Your task to perform on an android device: snooze an email in the gmail app Image 0: 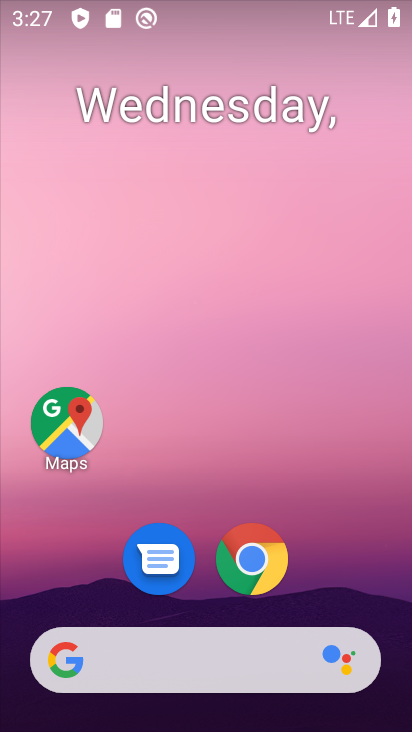
Step 0: drag from (243, 139) to (200, 8)
Your task to perform on an android device: snooze an email in the gmail app Image 1: 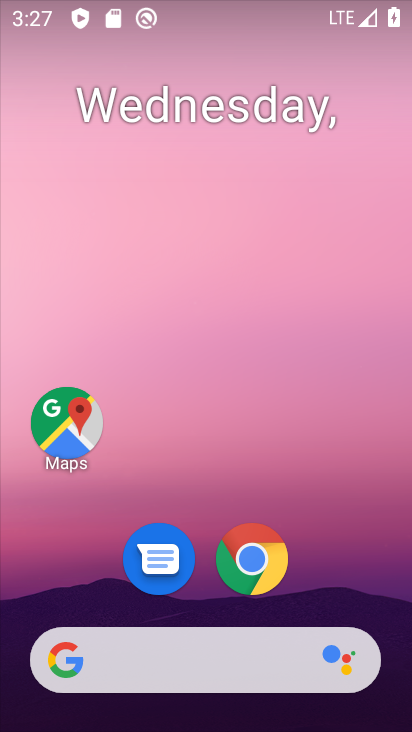
Step 1: drag from (344, 486) to (248, 129)
Your task to perform on an android device: snooze an email in the gmail app Image 2: 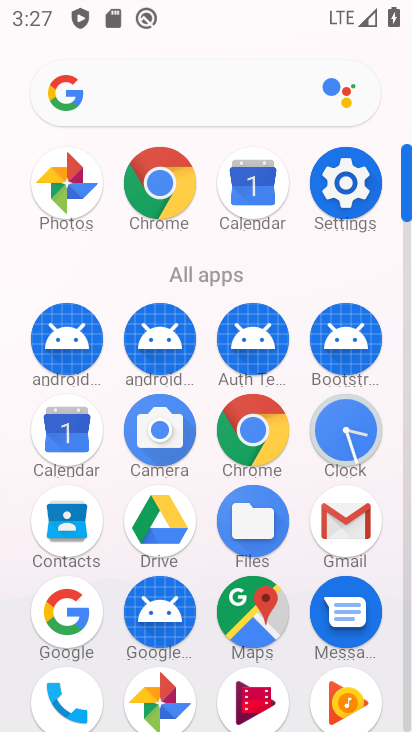
Step 2: click (327, 525)
Your task to perform on an android device: snooze an email in the gmail app Image 3: 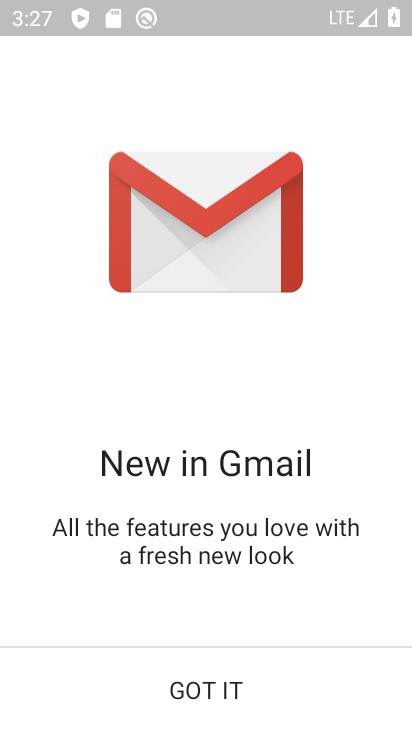
Step 3: click (293, 675)
Your task to perform on an android device: snooze an email in the gmail app Image 4: 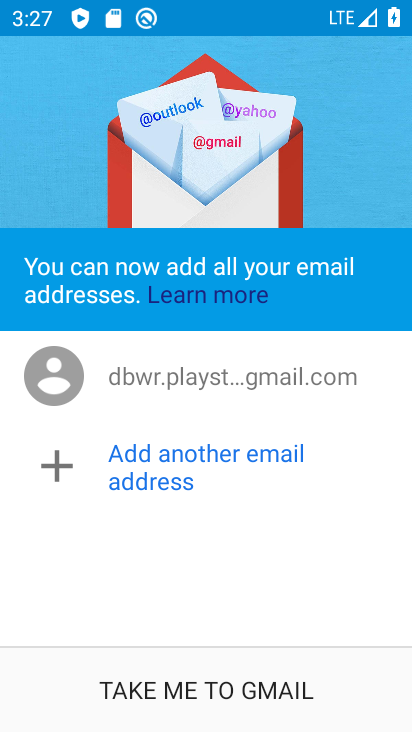
Step 4: click (282, 715)
Your task to perform on an android device: snooze an email in the gmail app Image 5: 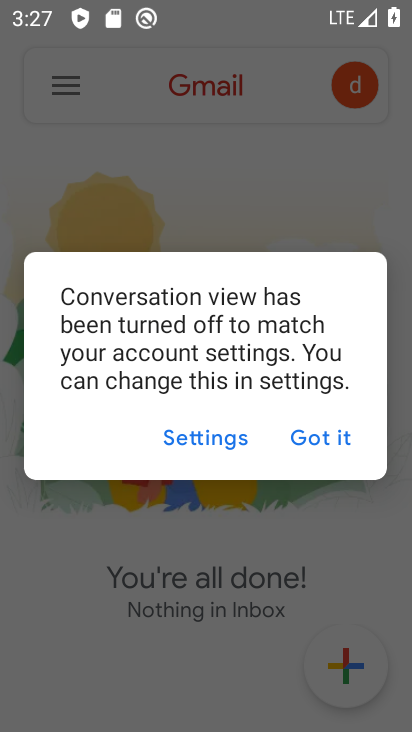
Step 5: click (312, 441)
Your task to perform on an android device: snooze an email in the gmail app Image 6: 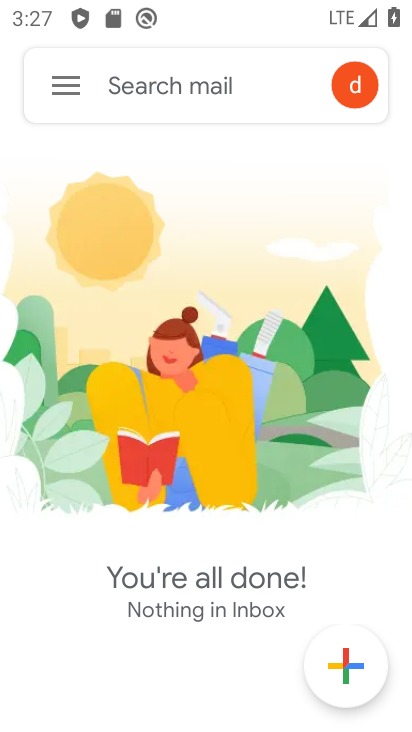
Step 6: click (65, 89)
Your task to perform on an android device: snooze an email in the gmail app Image 7: 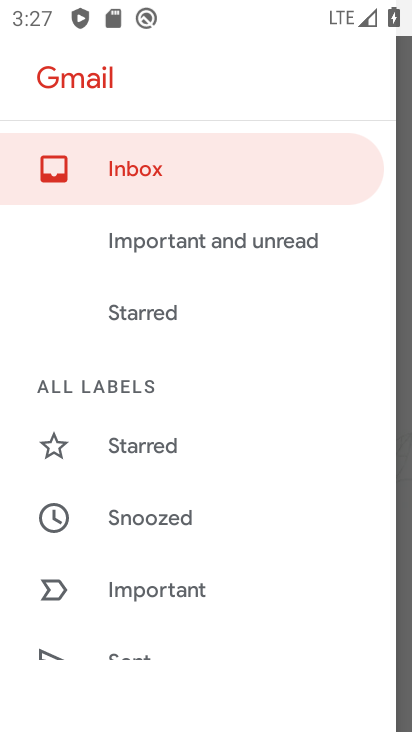
Step 7: drag from (217, 600) to (233, 173)
Your task to perform on an android device: snooze an email in the gmail app Image 8: 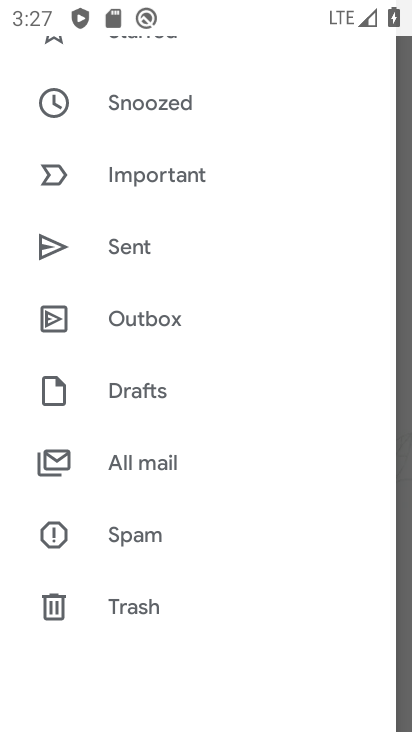
Step 8: drag from (203, 287) to (209, 518)
Your task to perform on an android device: snooze an email in the gmail app Image 9: 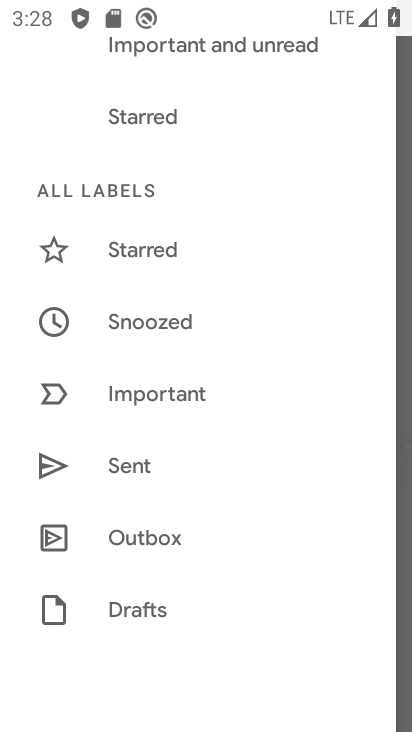
Step 9: drag from (180, 246) to (207, 644)
Your task to perform on an android device: snooze an email in the gmail app Image 10: 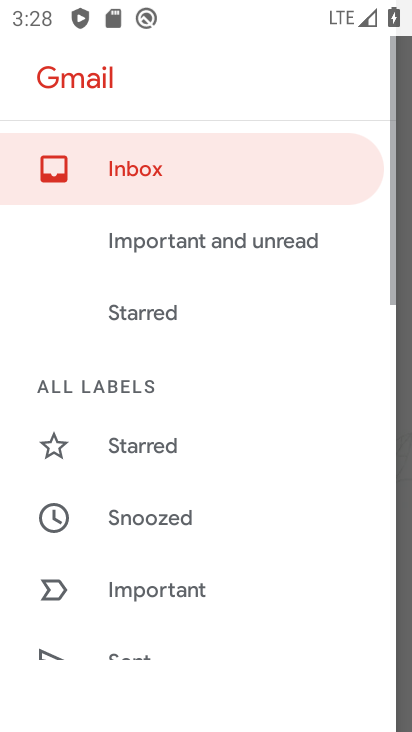
Step 10: drag from (230, 531) to (262, 91)
Your task to perform on an android device: snooze an email in the gmail app Image 11: 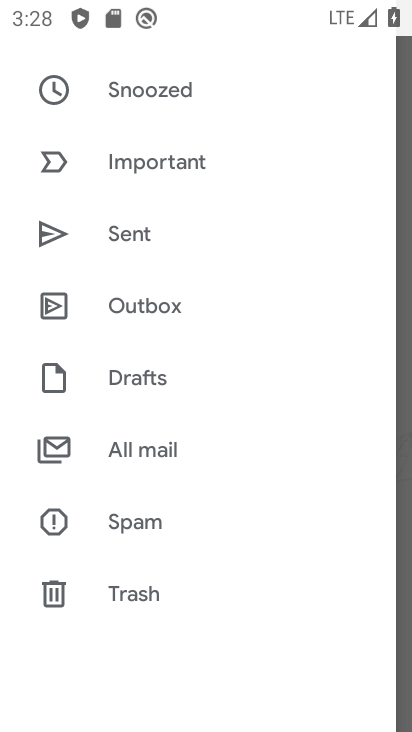
Step 11: click (151, 452)
Your task to perform on an android device: snooze an email in the gmail app Image 12: 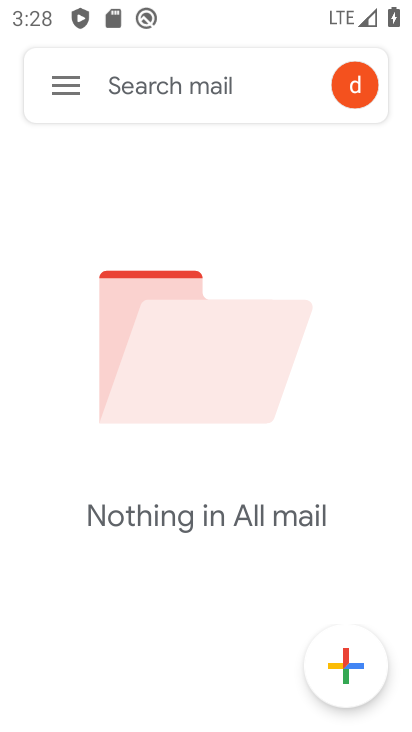
Step 12: task complete